Your task to perform on an android device: toggle notifications settings in the gmail app Image 0: 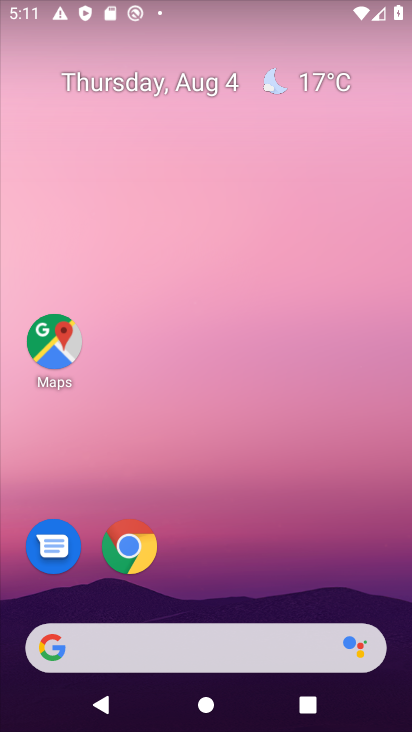
Step 0: drag from (190, 480) to (202, 49)
Your task to perform on an android device: toggle notifications settings in the gmail app Image 1: 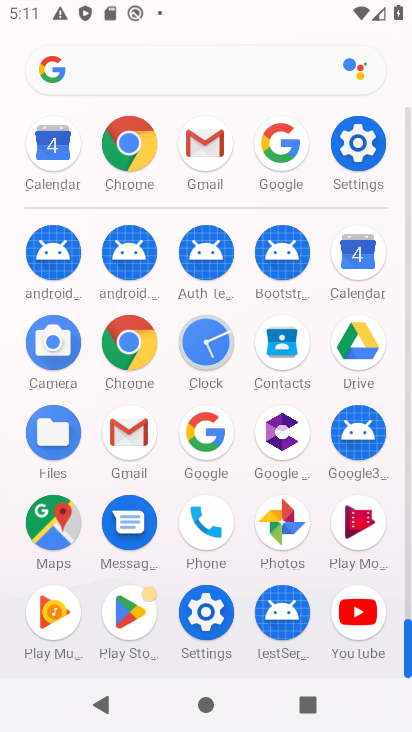
Step 1: click (356, 149)
Your task to perform on an android device: toggle notifications settings in the gmail app Image 2: 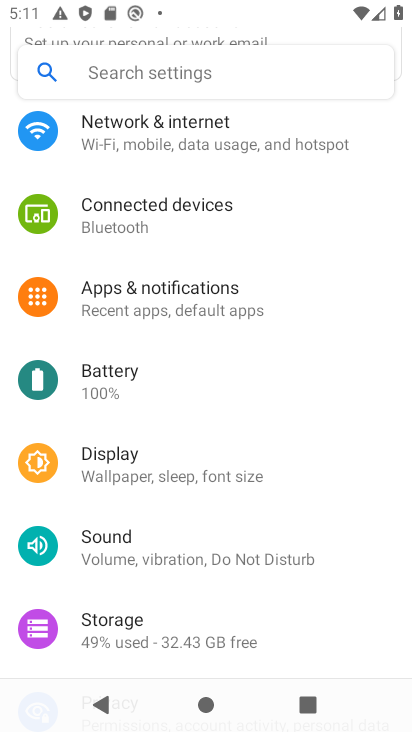
Step 2: click (99, 311)
Your task to perform on an android device: toggle notifications settings in the gmail app Image 3: 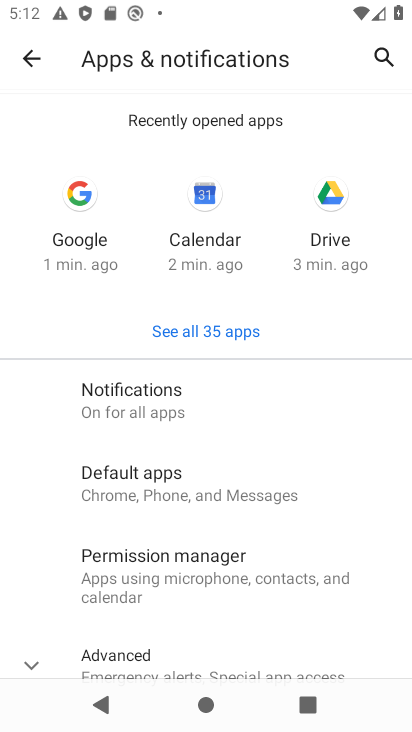
Step 3: click (126, 396)
Your task to perform on an android device: toggle notifications settings in the gmail app Image 4: 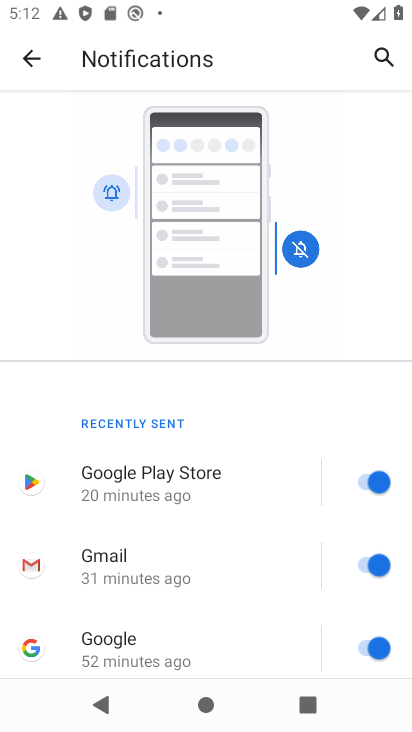
Step 4: drag from (136, 556) to (155, 168)
Your task to perform on an android device: toggle notifications settings in the gmail app Image 5: 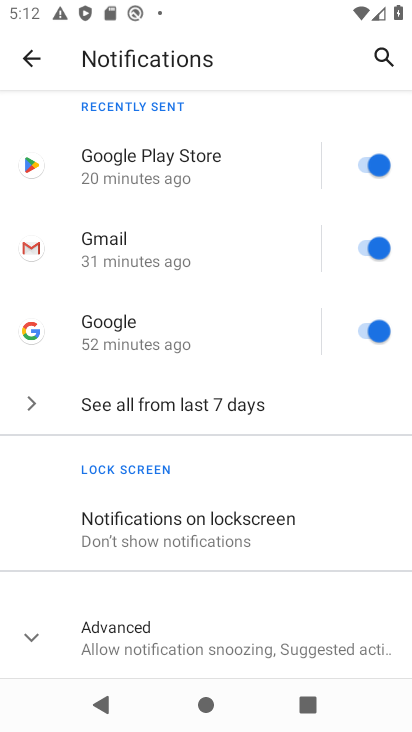
Step 5: click (201, 239)
Your task to perform on an android device: toggle notifications settings in the gmail app Image 6: 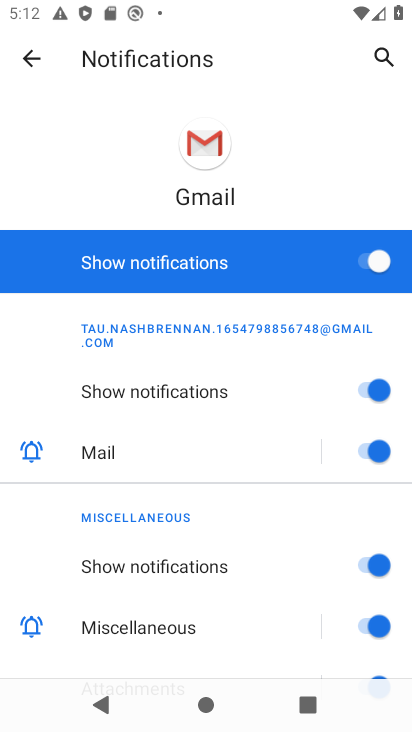
Step 6: click (367, 257)
Your task to perform on an android device: toggle notifications settings in the gmail app Image 7: 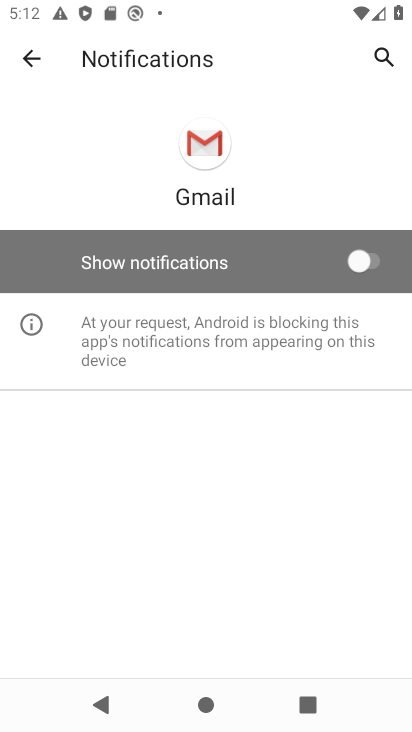
Step 7: task complete